Your task to perform on an android device: Open the calendar and show me this week's events? Image 0: 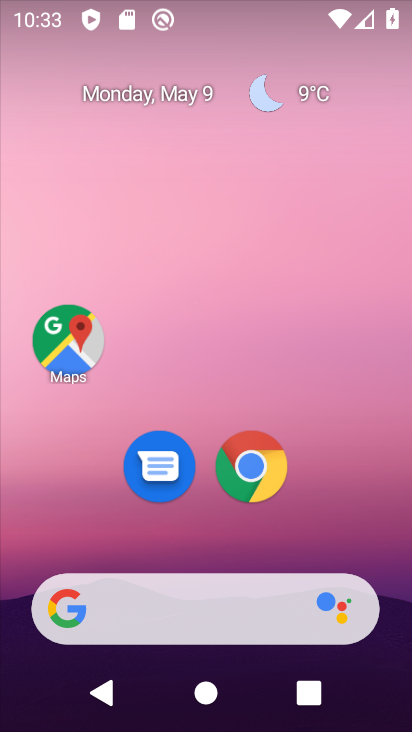
Step 0: drag from (354, 509) to (0, 84)
Your task to perform on an android device: Open the calendar and show me this week's events? Image 1: 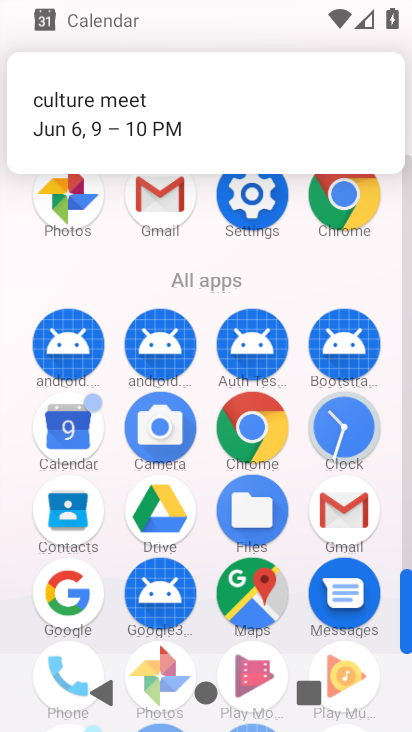
Step 1: click (61, 430)
Your task to perform on an android device: Open the calendar and show me this week's events? Image 2: 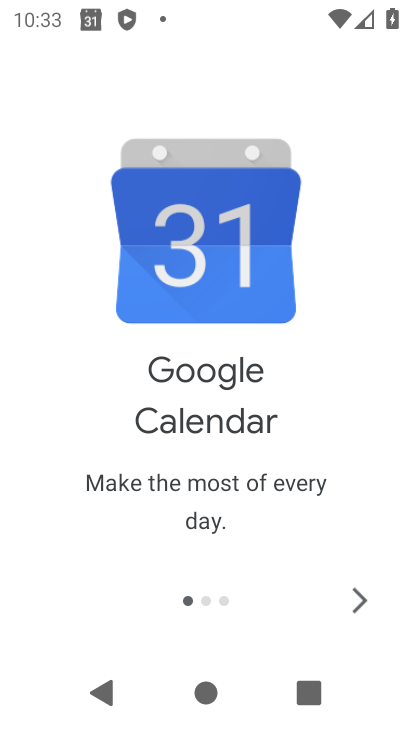
Step 2: click (374, 597)
Your task to perform on an android device: Open the calendar and show me this week's events? Image 3: 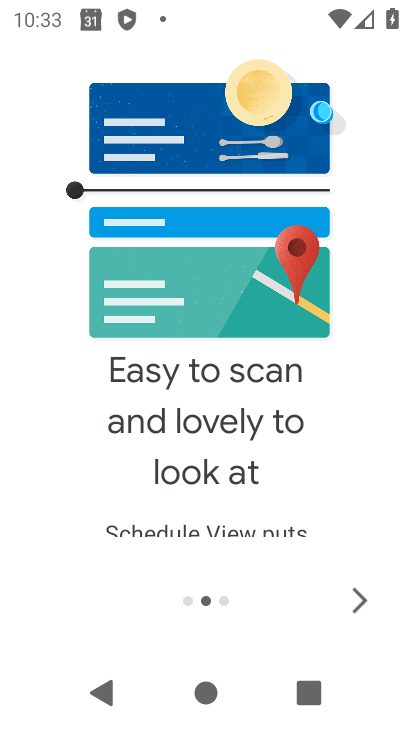
Step 3: click (367, 599)
Your task to perform on an android device: Open the calendar and show me this week's events? Image 4: 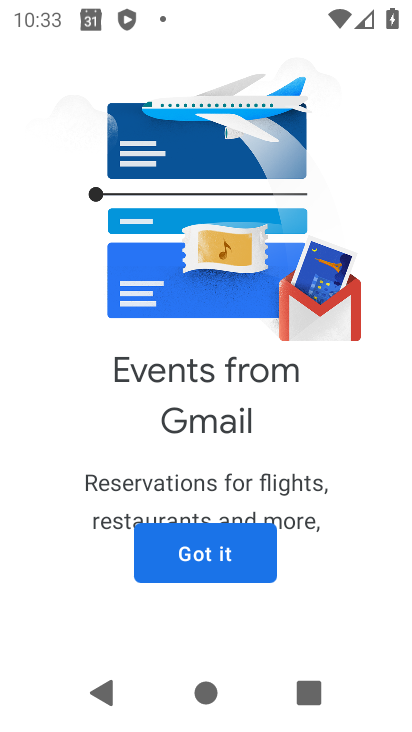
Step 4: click (248, 553)
Your task to perform on an android device: Open the calendar and show me this week's events? Image 5: 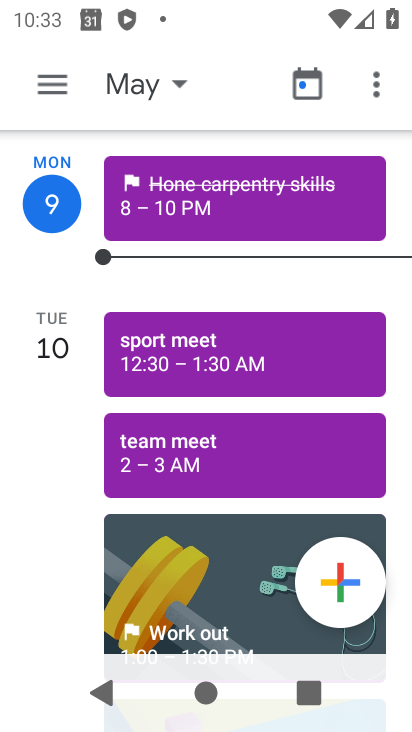
Step 5: click (56, 69)
Your task to perform on an android device: Open the calendar and show me this week's events? Image 6: 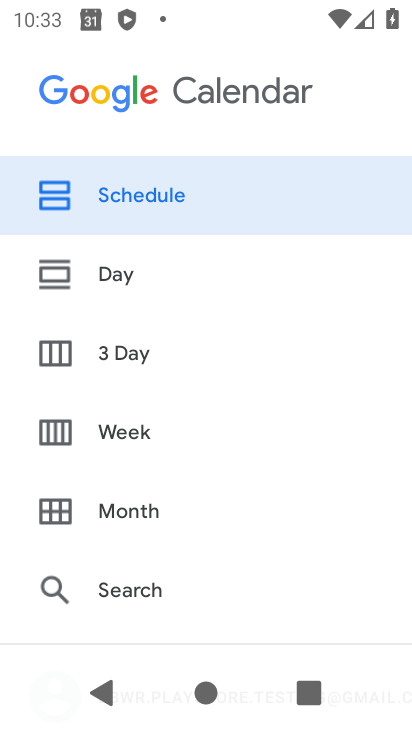
Step 6: drag from (181, 387) to (207, 422)
Your task to perform on an android device: Open the calendar and show me this week's events? Image 7: 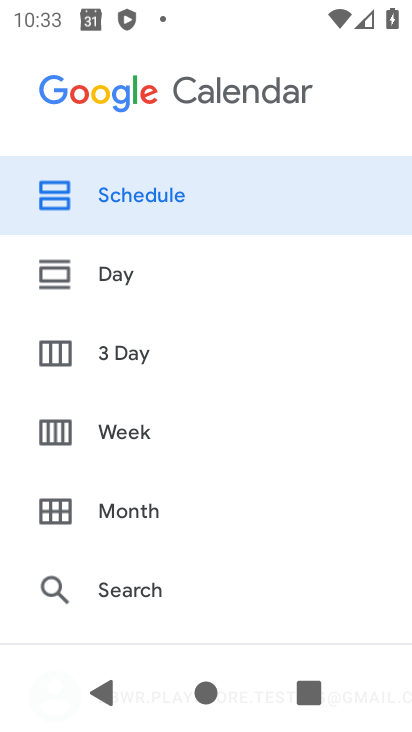
Step 7: click (207, 422)
Your task to perform on an android device: Open the calendar and show me this week's events? Image 8: 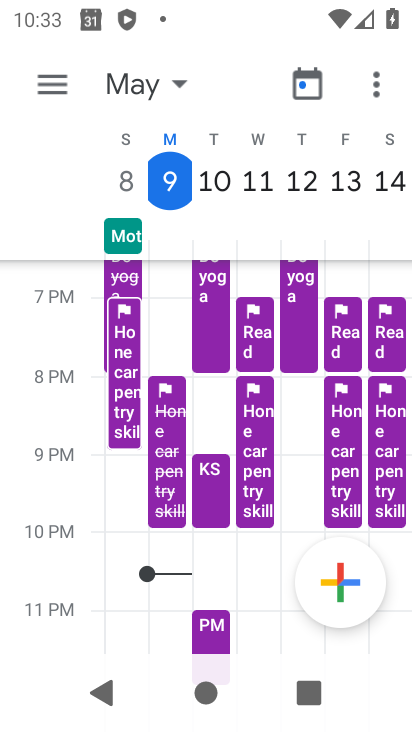
Step 8: task complete